Your task to perform on an android device: Go to Android settings Image 0: 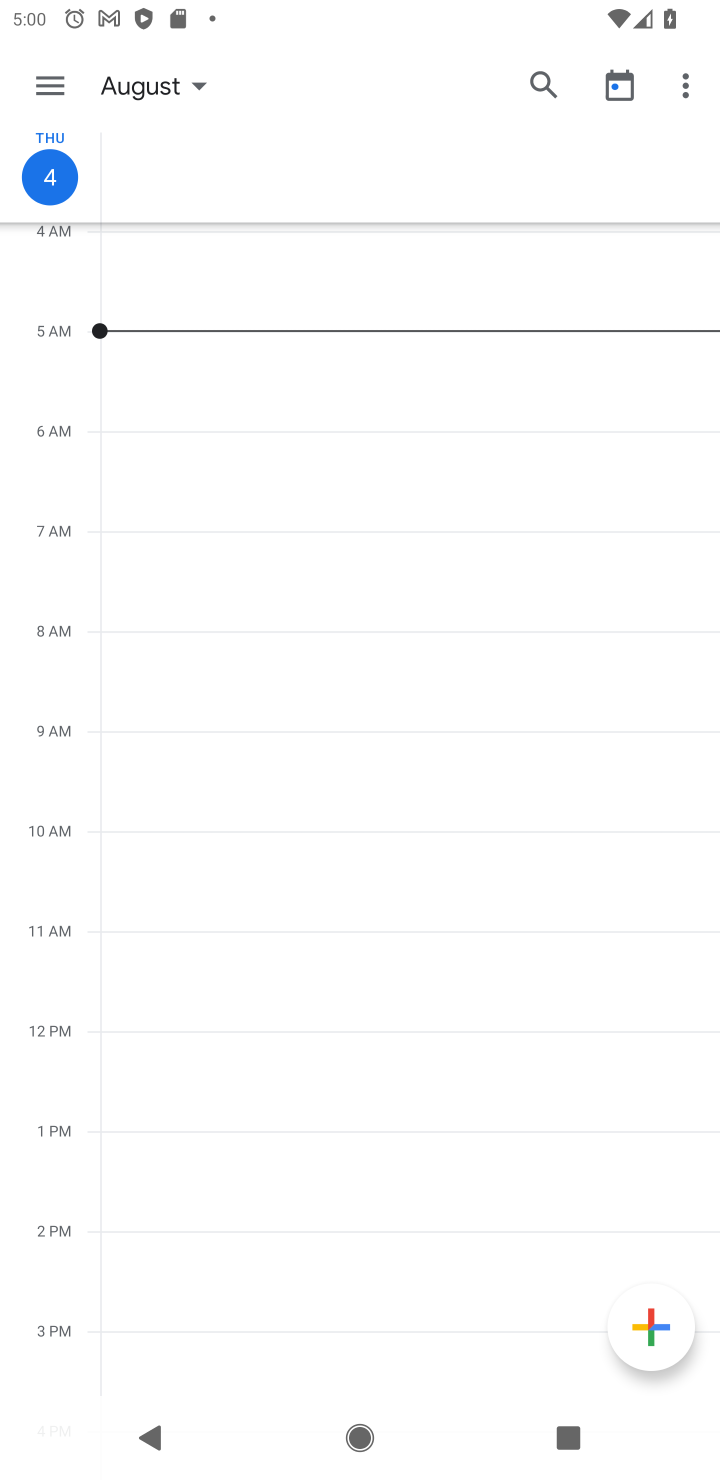
Step 0: press home button
Your task to perform on an android device: Go to Android settings Image 1: 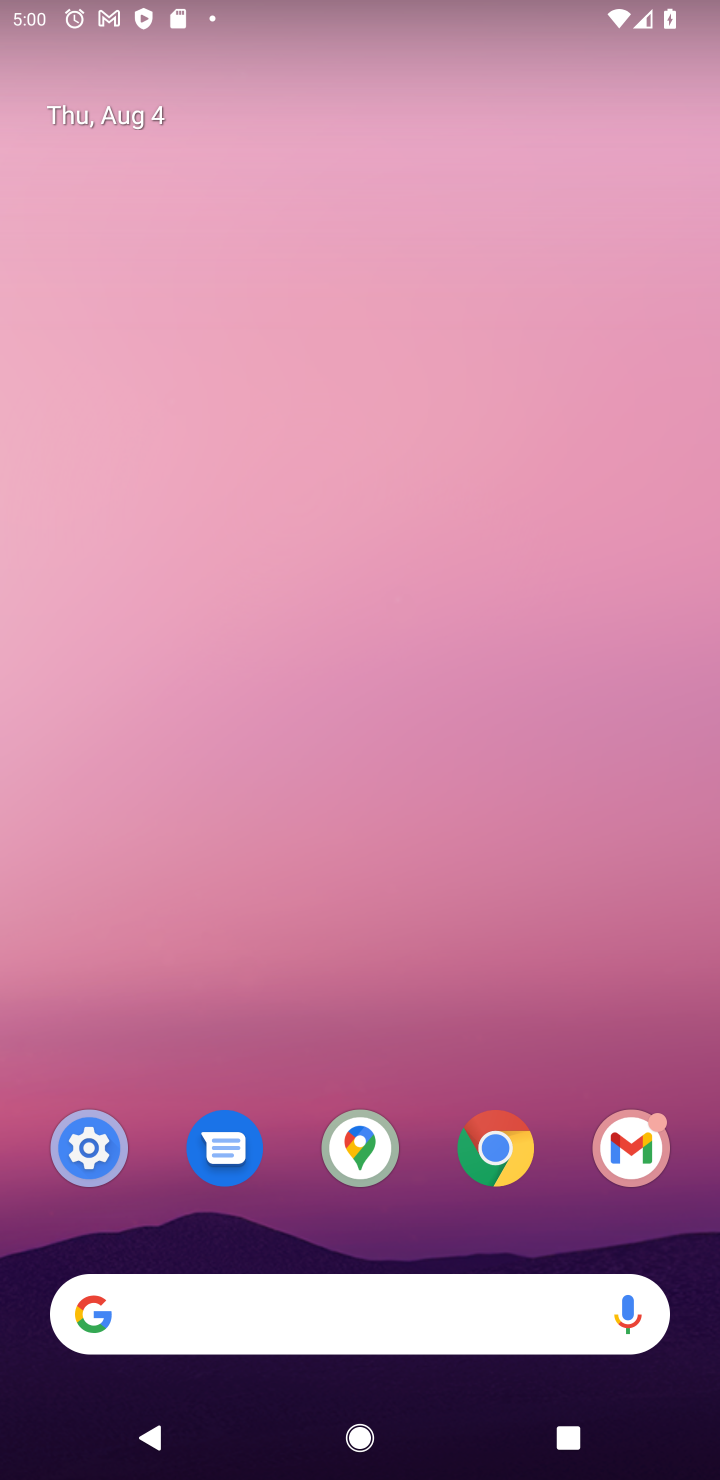
Step 1: click (85, 1145)
Your task to perform on an android device: Go to Android settings Image 2: 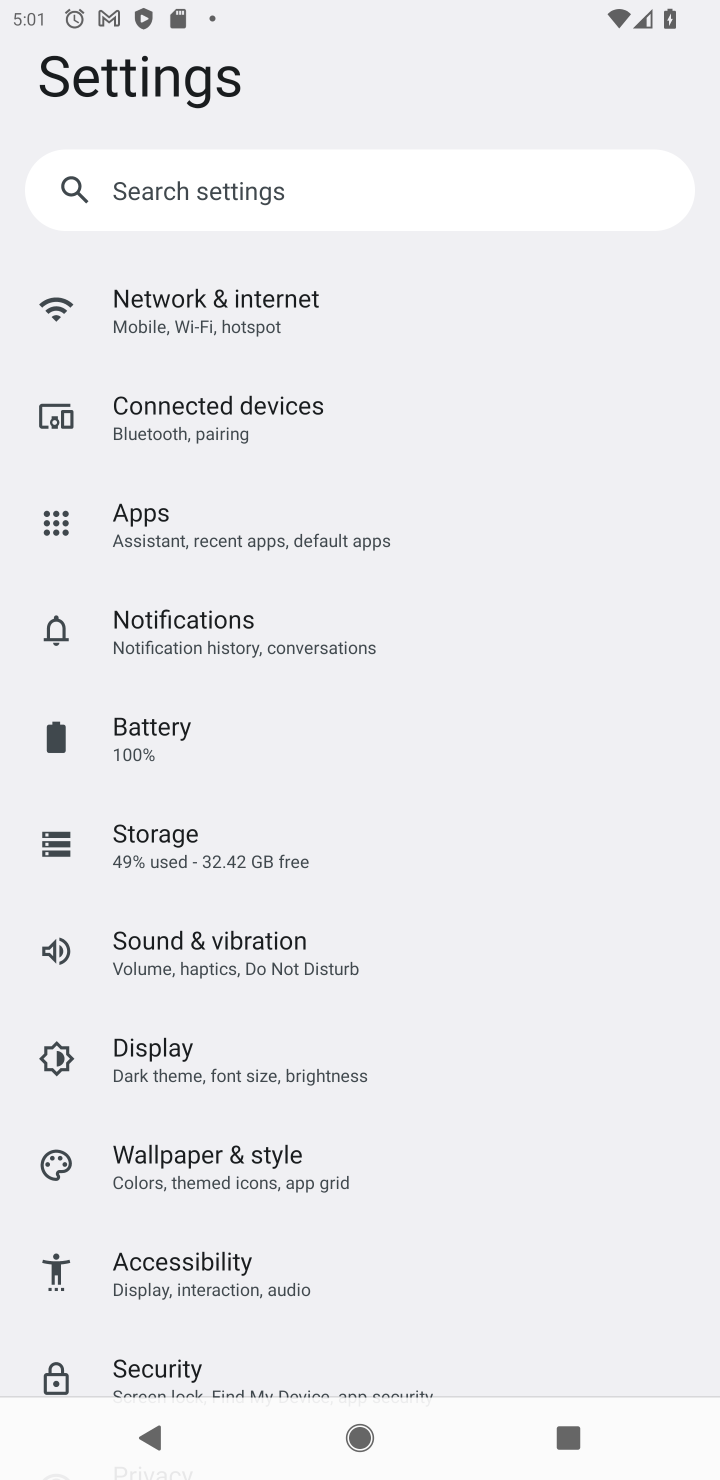
Step 2: drag from (406, 1325) to (471, 492)
Your task to perform on an android device: Go to Android settings Image 3: 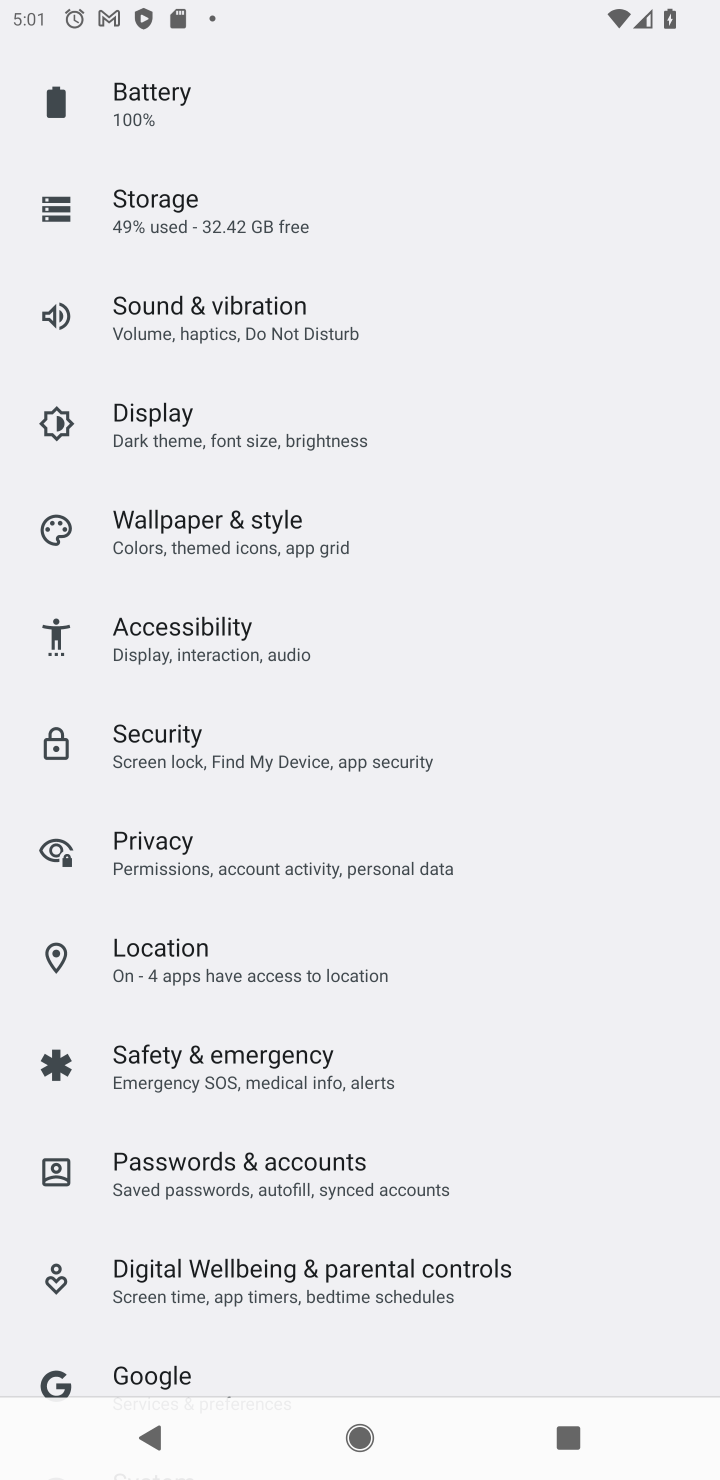
Step 3: drag from (556, 1224) to (538, 198)
Your task to perform on an android device: Go to Android settings Image 4: 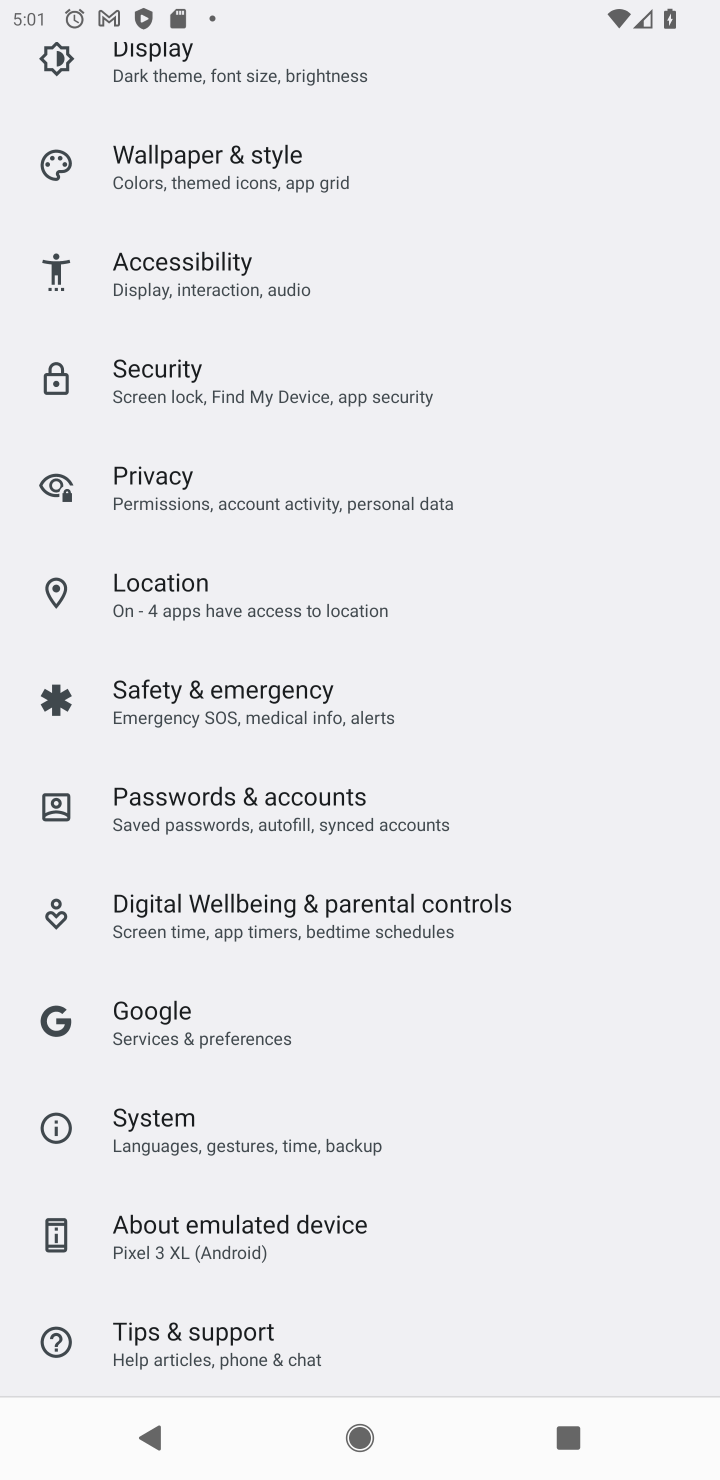
Step 4: drag from (479, 1250) to (495, 420)
Your task to perform on an android device: Go to Android settings Image 5: 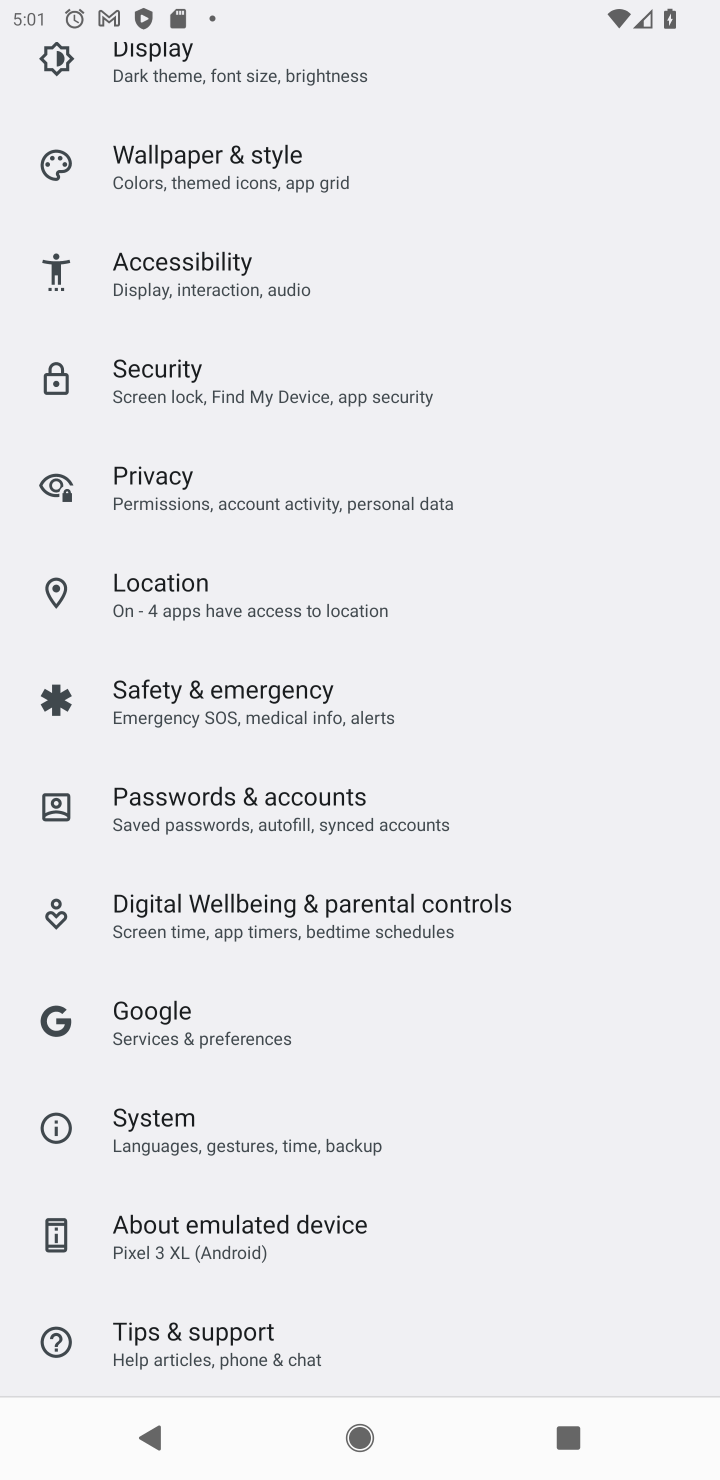
Step 5: drag from (526, 1277) to (531, 787)
Your task to perform on an android device: Go to Android settings Image 6: 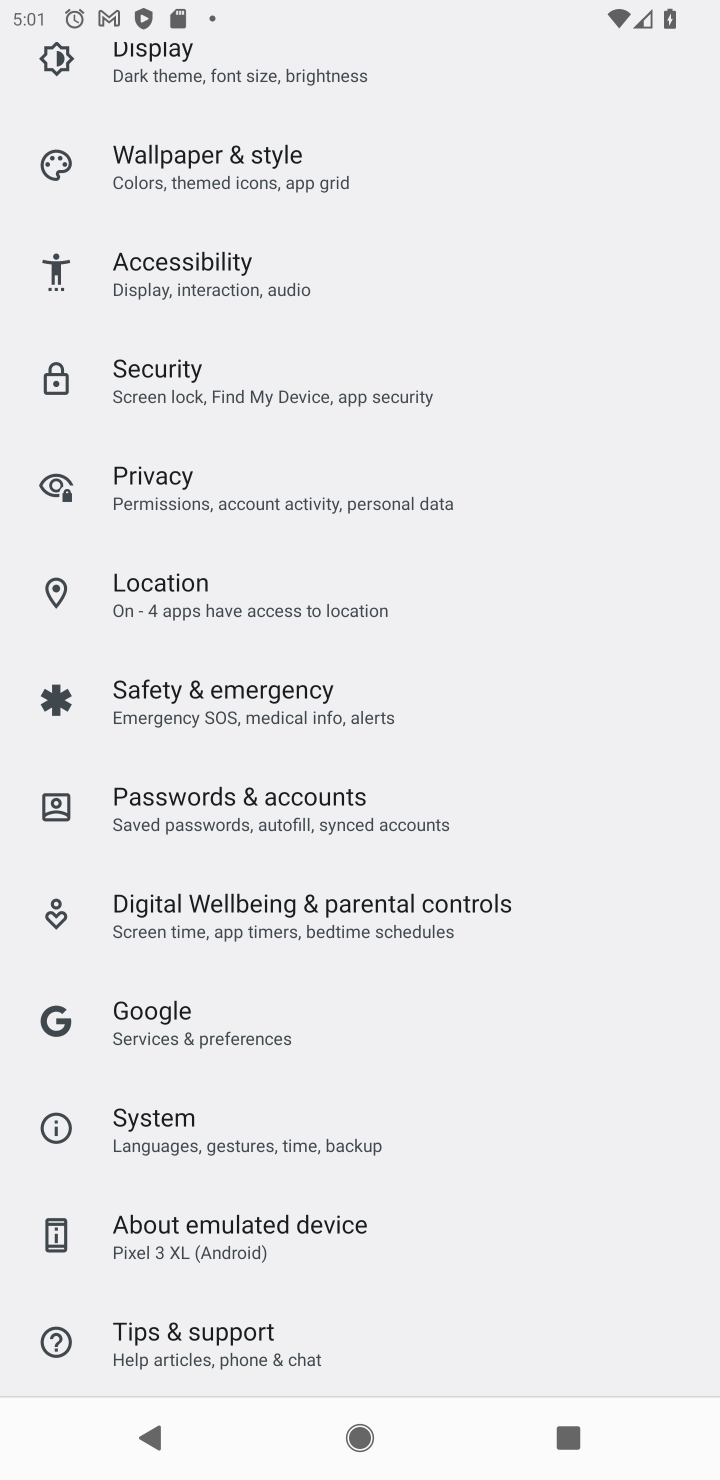
Step 6: click (204, 1228)
Your task to perform on an android device: Go to Android settings Image 7: 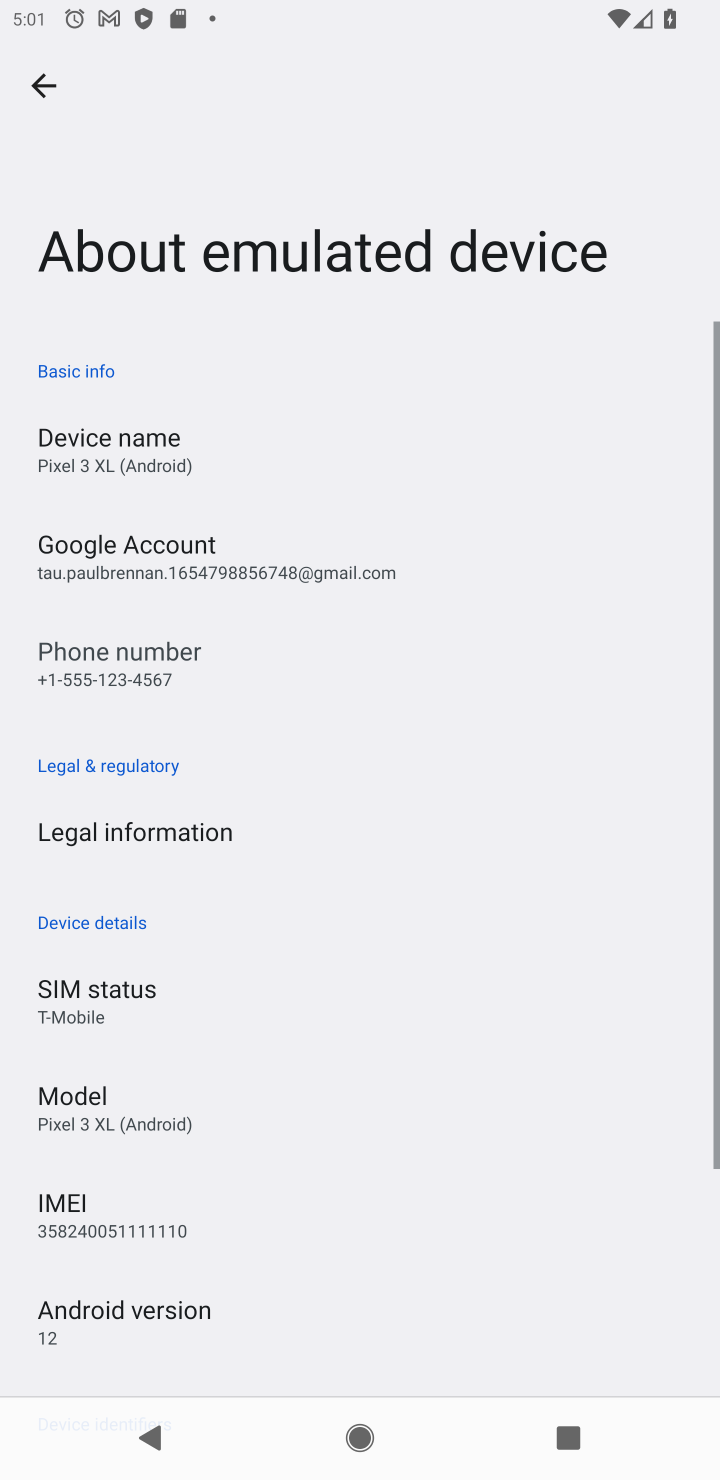
Step 7: task complete